Your task to perform on an android device: Open Yahoo.com Image 0: 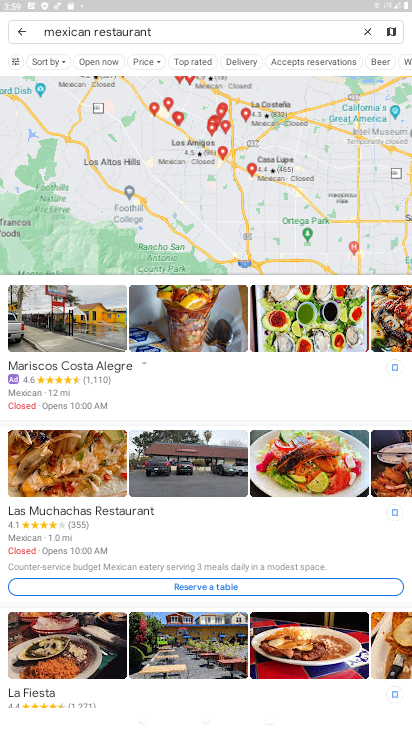
Step 0: press home button
Your task to perform on an android device: Open Yahoo.com Image 1: 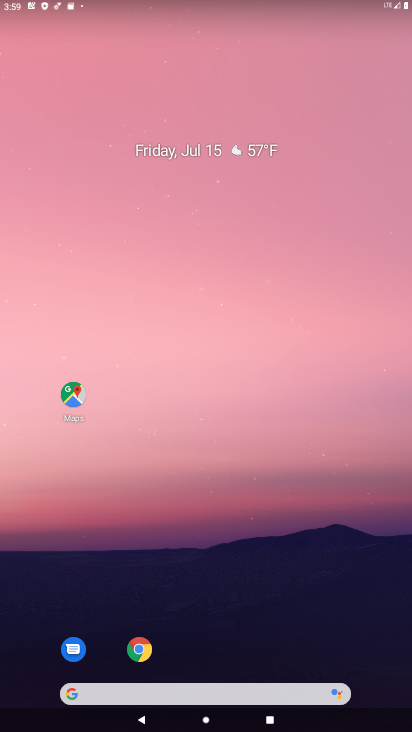
Step 1: click (139, 651)
Your task to perform on an android device: Open Yahoo.com Image 2: 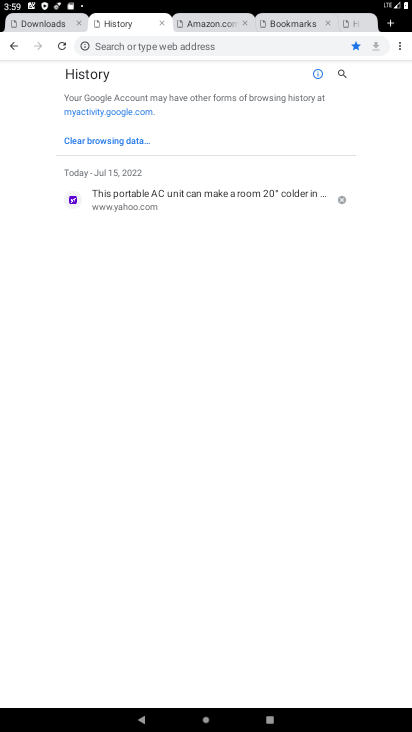
Step 2: click (397, 45)
Your task to perform on an android device: Open Yahoo.com Image 3: 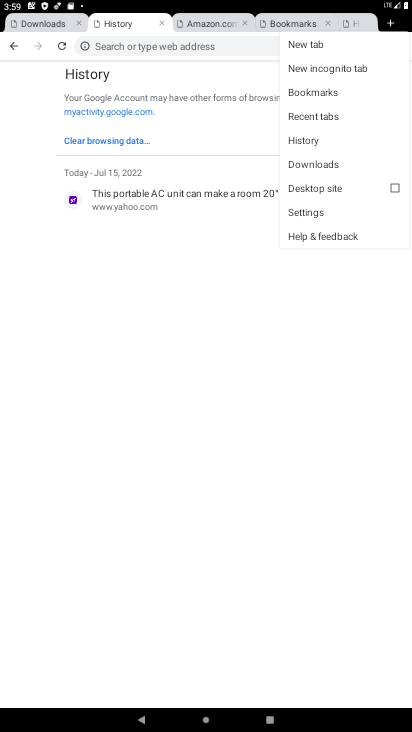
Step 3: click (302, 45)
Your task to perform on an android device: Open Yahoo.com Image 4: 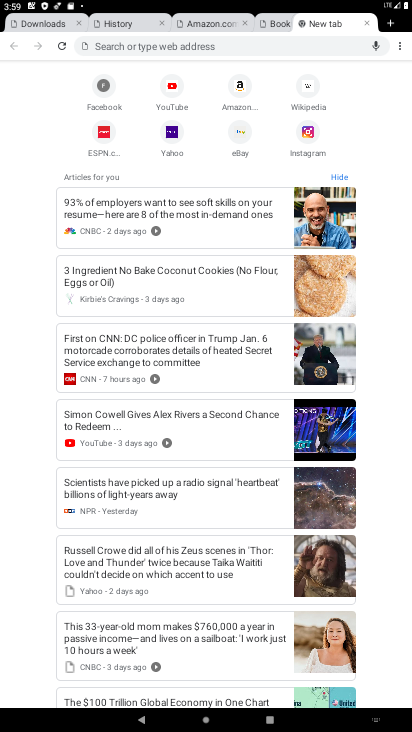
Step 4: click (172, 138)
Your task to perform on an android device: Open Yahoo.com Image 5: 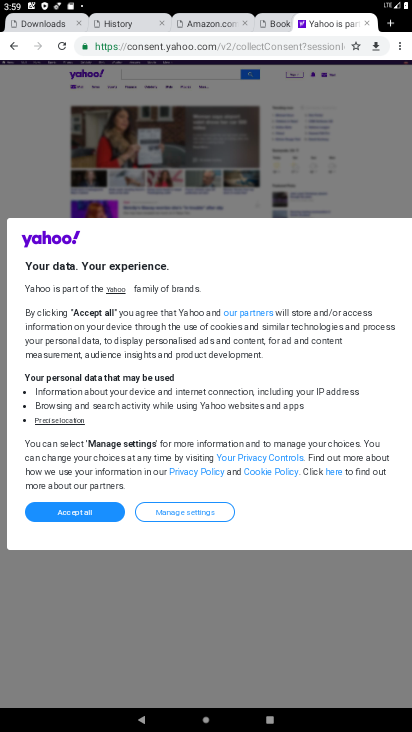
Step 5: task complete